Your task to perform on an android device: open device folders in google photos Image 0: 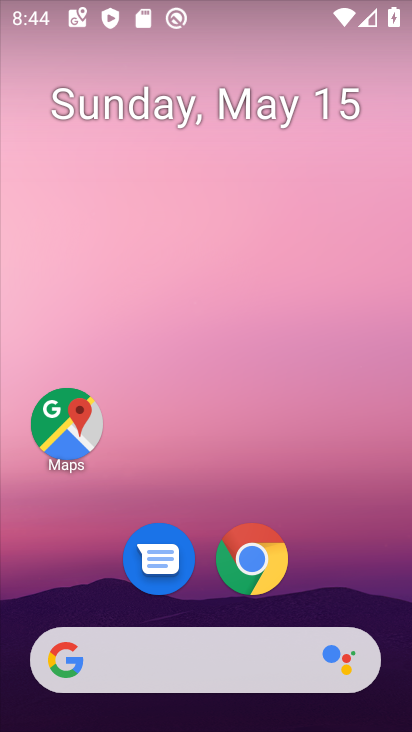
Step 0: drag from (337, 587) to (357, 201)
Your task to perform on an android device: open device folders in google photos Image 1: 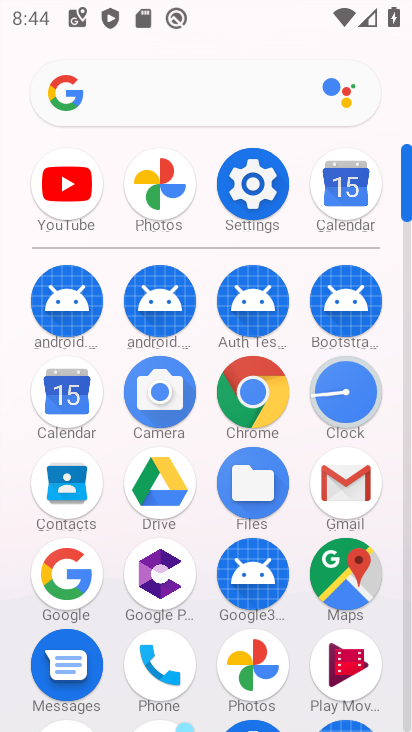
Step 1: click (242, 660)
Your task to perform on an android device: open device folders in google photos Image 2: 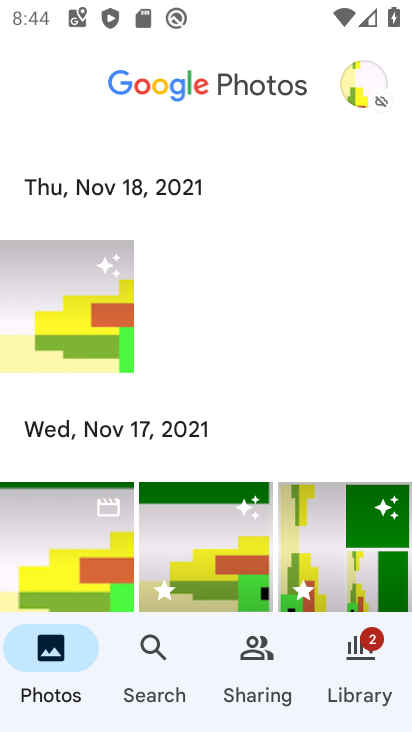
Step 2: click (365, 102)
Your task to perform on an android device: open device folders in google photos Image 3: 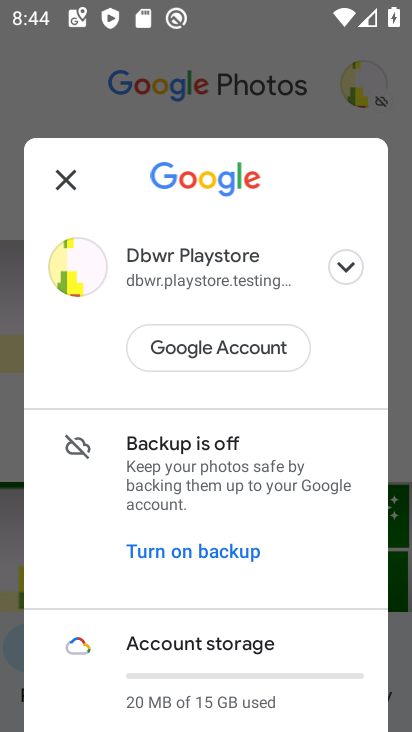
Step 3: drag from (241, 611) to (274, 428)
Your task to perform on an android device: open device folders in google photos Image 4: 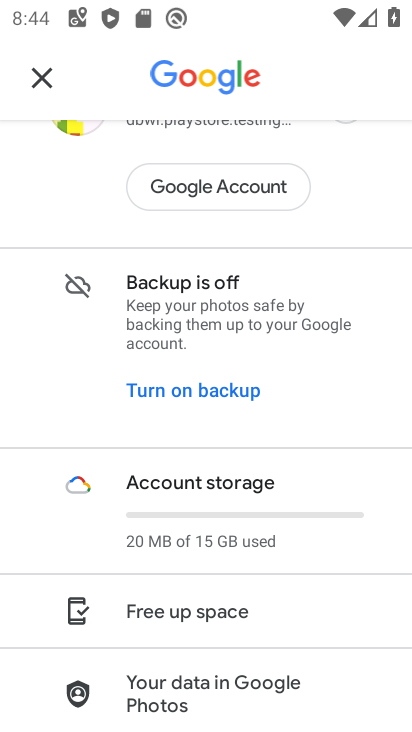
Step 4: click (224, 605)
Your task to perform on an android device: open device folders in google photos Image 5: 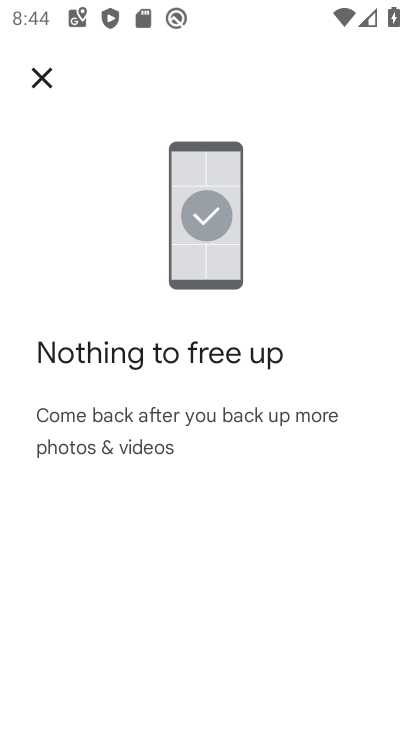
Step 5: click (45, 81)
Your task to perform on an android device: open device folders in google photos Image 6: 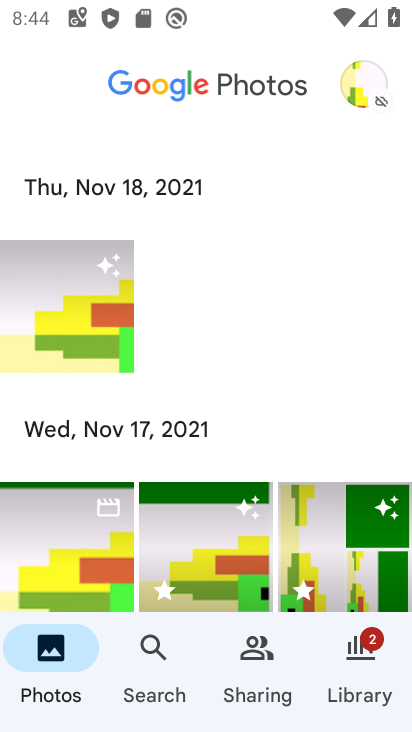
Step 6: click (345, 658)
Your task to perform on an android device: open device folders in google photos Image 7: 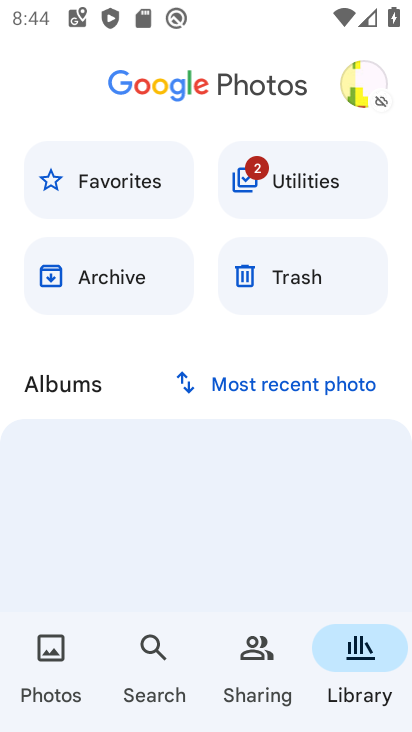
Step 7: click (369, 96)
Your task to perform on an android device: open device folders in google photos Image 8: 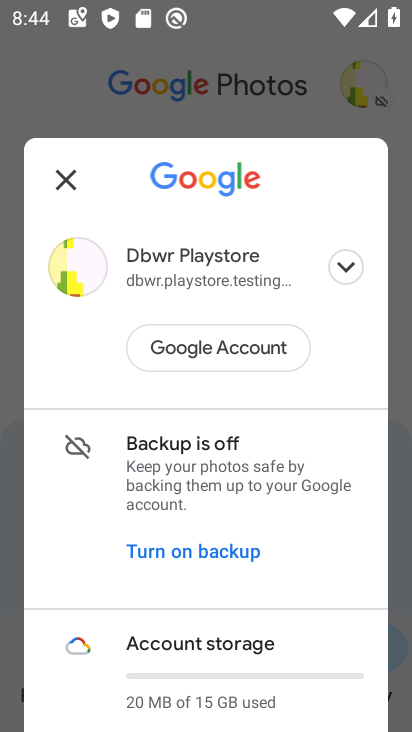
Step 8: drag from (239, 553) to (268, 307)
Your task to perform on an android device: open device folders in google photos Image 9: 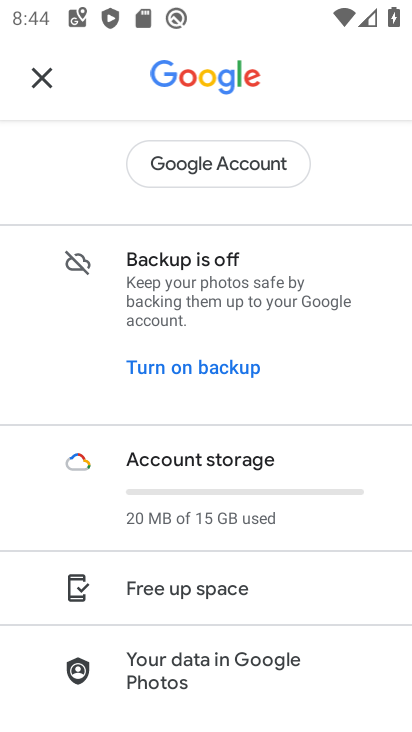
Step 9: click (256, 593)
Your task to perform on an android device: open device folders in google photos Image 10: 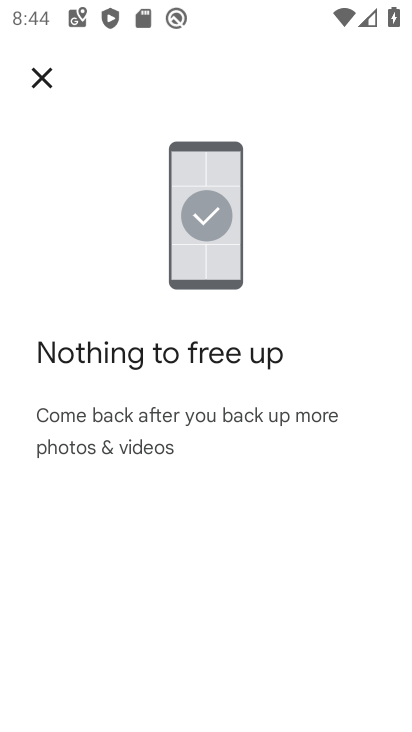
Step 10: click (54, 79)
Your task to perform on an android device: open device folders in google photos Image 11: 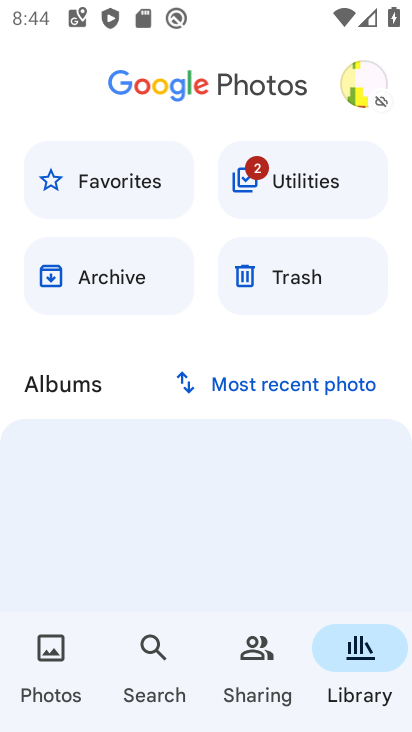
Step 11: click (347, 97)
Your task to perform on an android device: open device folders in google photos Image 12: 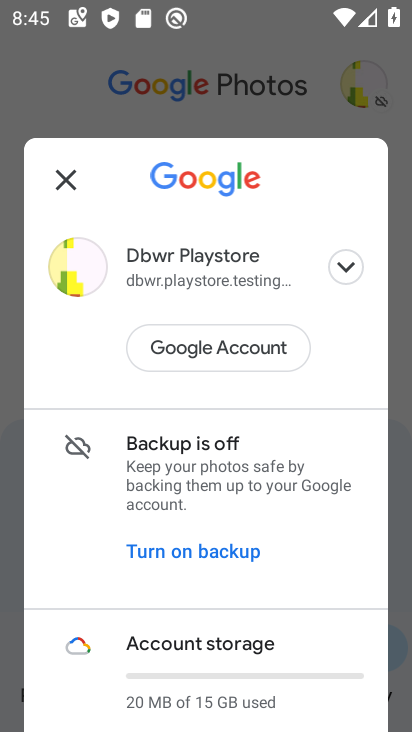
Step 12: click (348, 269)
Your task to perform on an android device: open device folders in google photos Image 13: 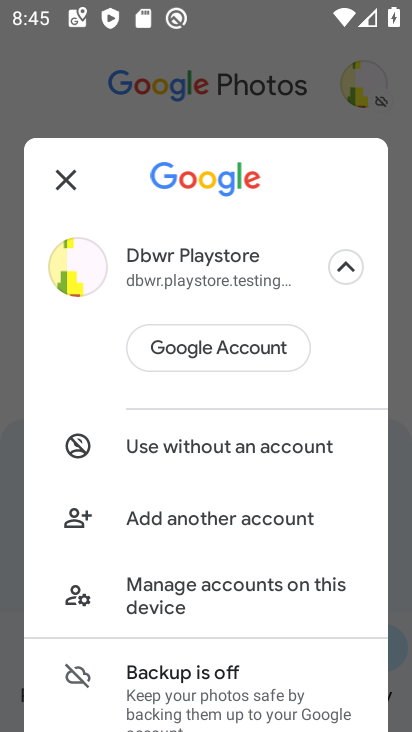
Step 13: task complete